Your task to perform on an android device: Open the Play Movies app and select the watchlist tab. Image 0: 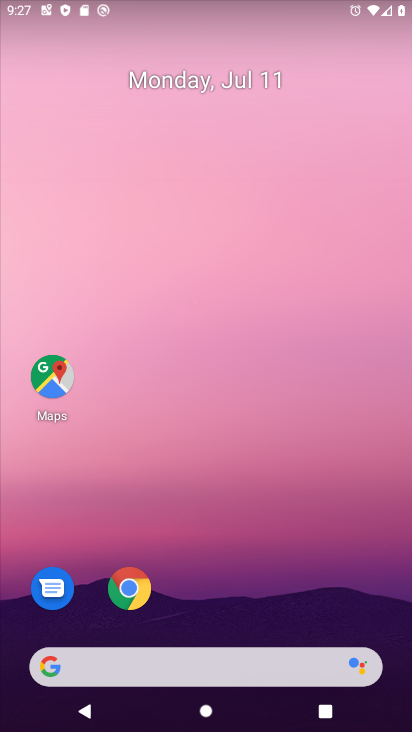
Step 0: drag from (232, 528) to (221, 21)
Your task to perform on an android device: Open the Play Movies app and select the watchlist tab. Image 1: 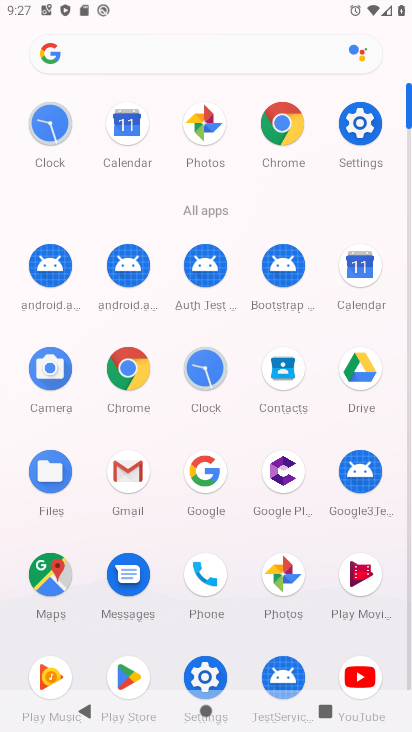
Step 1: click (350, 578)
Your task to perform on an android device: Open the Play Movies app and select the watchlist tab. Image 2: 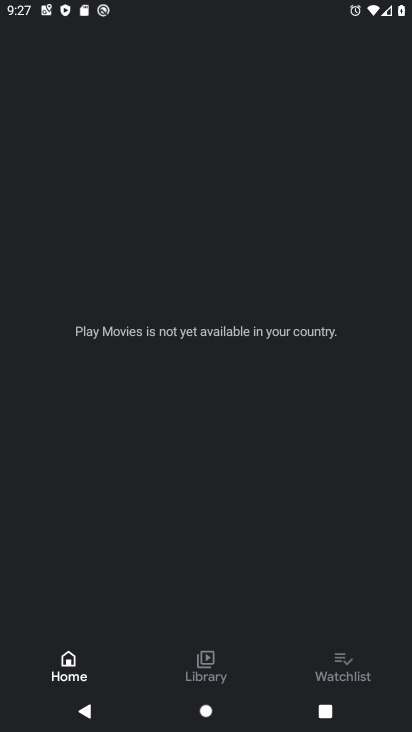
Step 2: click (336, 668)
Your task to perform on an android device: Open the Play Movies app and select the watchlist tab. Image 3: 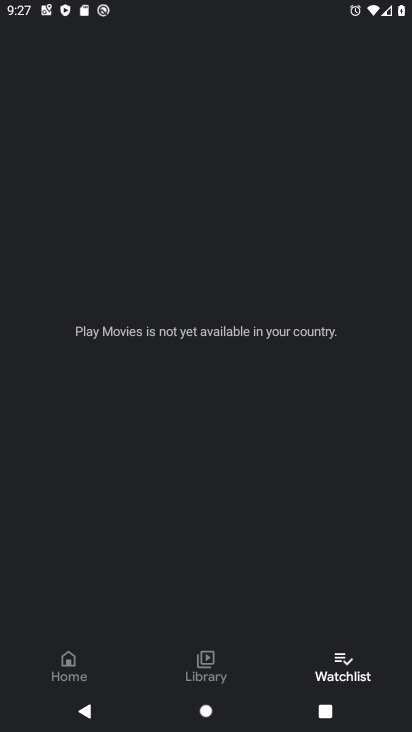
Step 3: task complete